Your task to perform on an android device: change your default location settings in chrome Image 0: 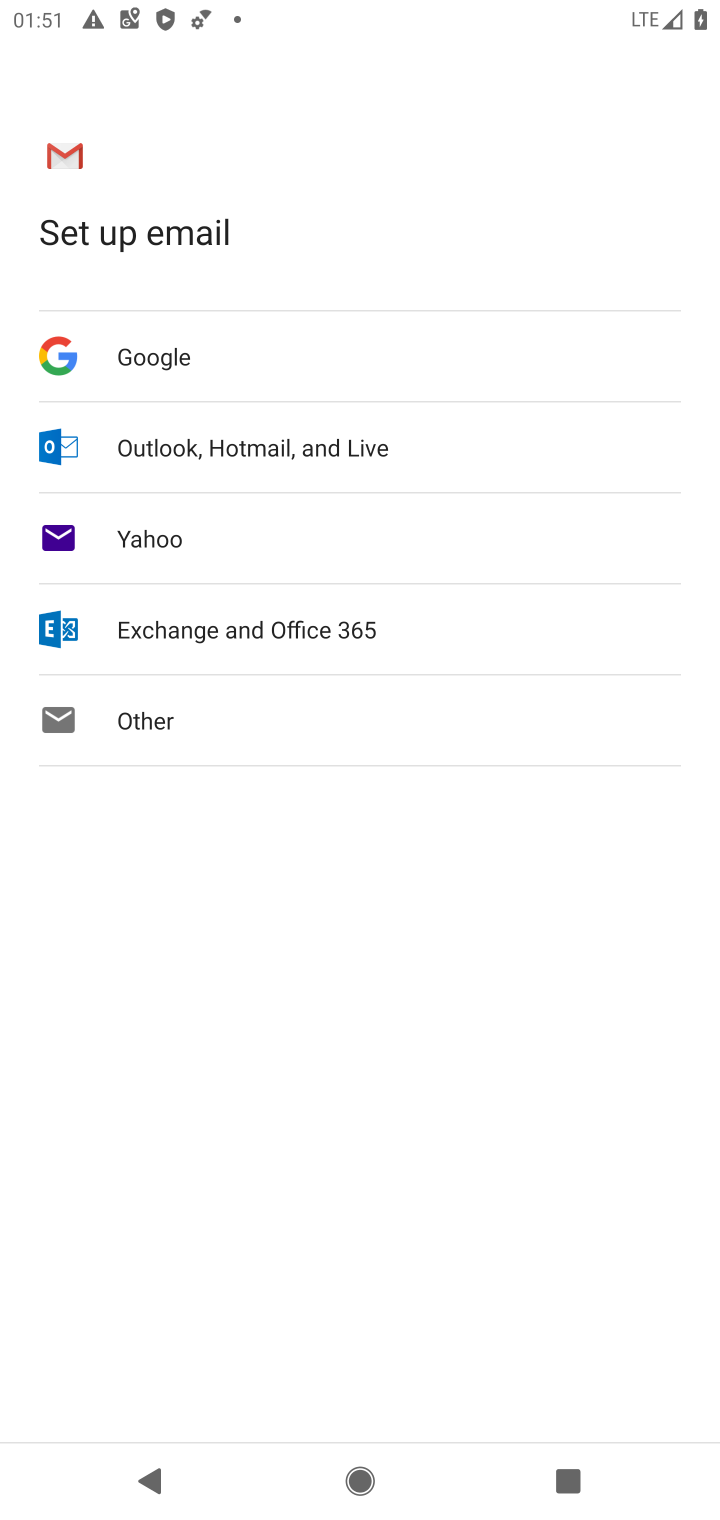
Step 0: press home button
Your task to perform on an android device: change your default location settings in chrome Image 1: 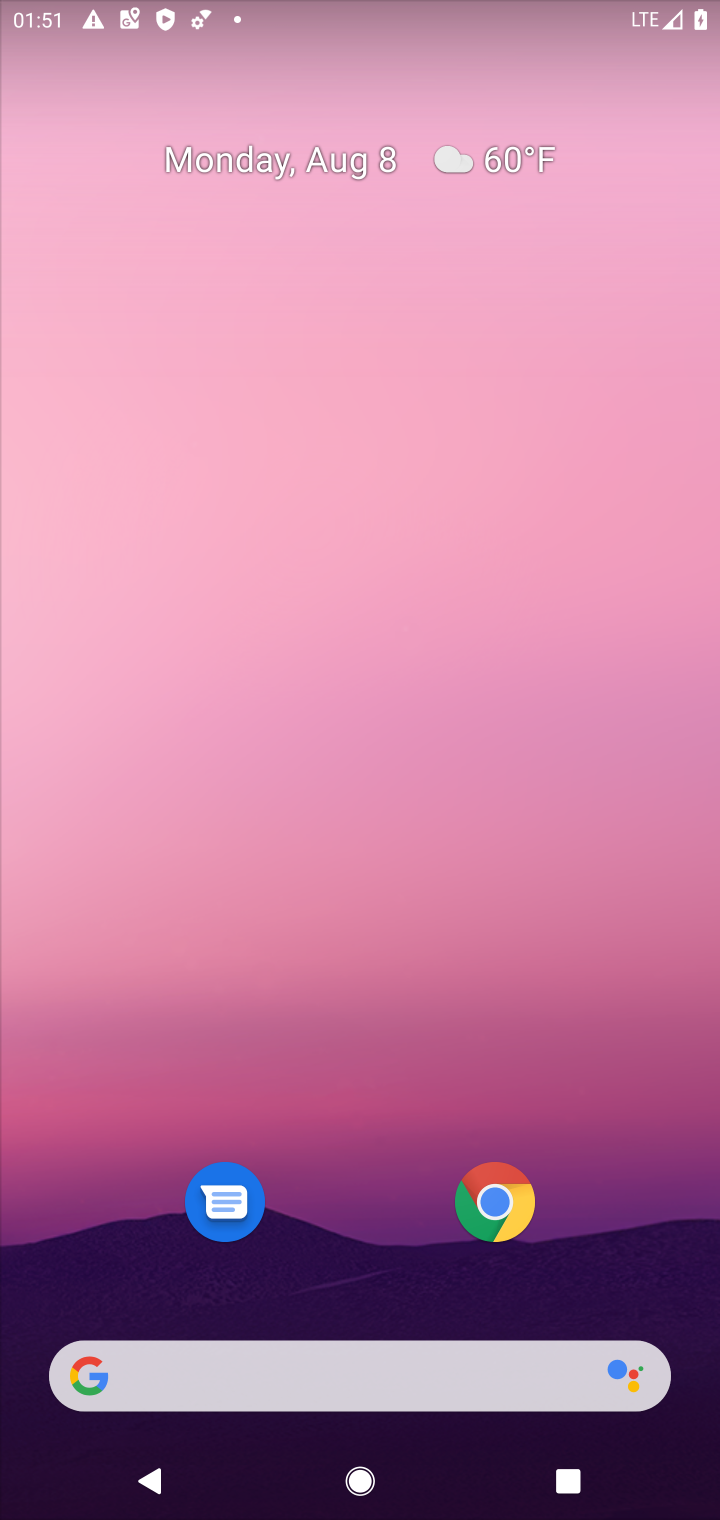
Step 1: click (488, 1203)
Your task to perform on an android device: change your default location settings in chrome Image 2: 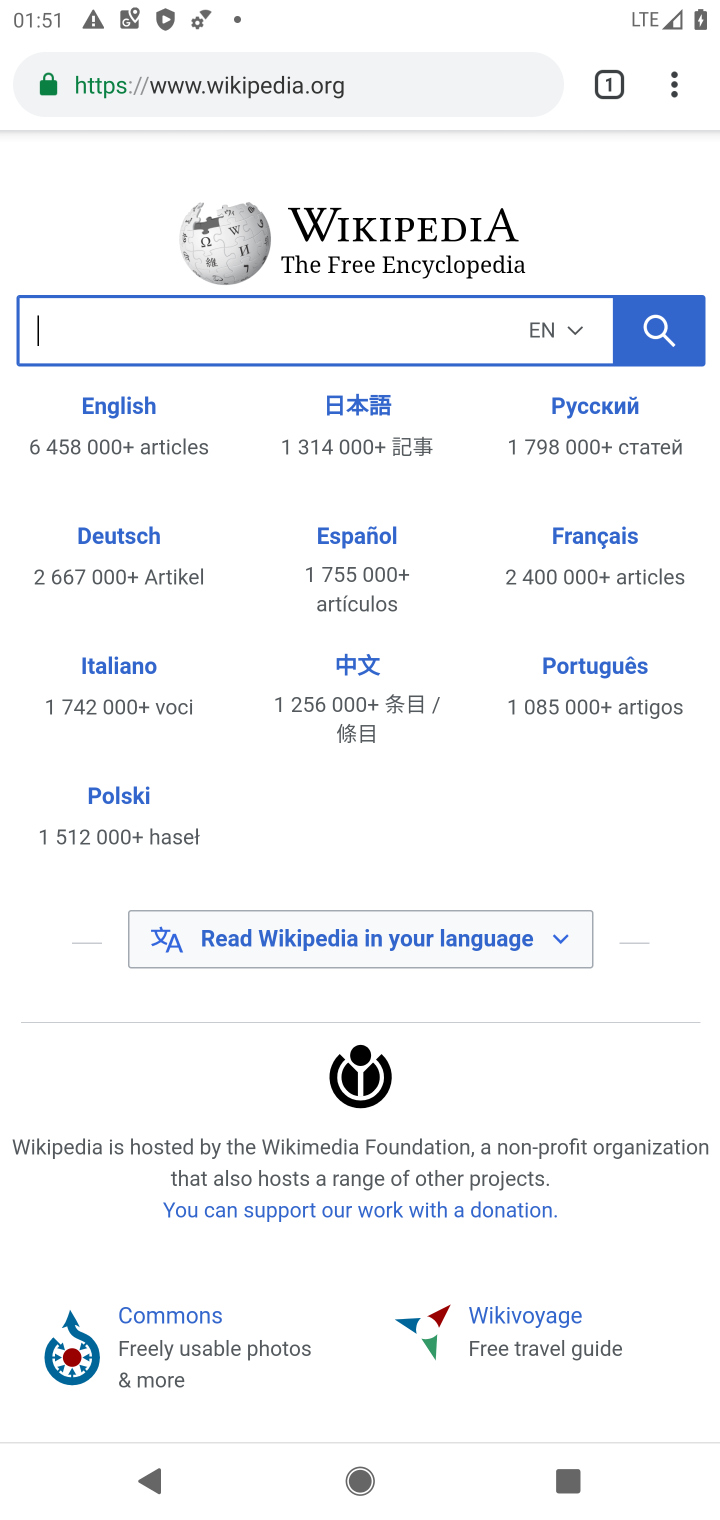
Step 2: click (678, 101)
Your task to perform on an android device: change your default location settings in chrome Image 3: 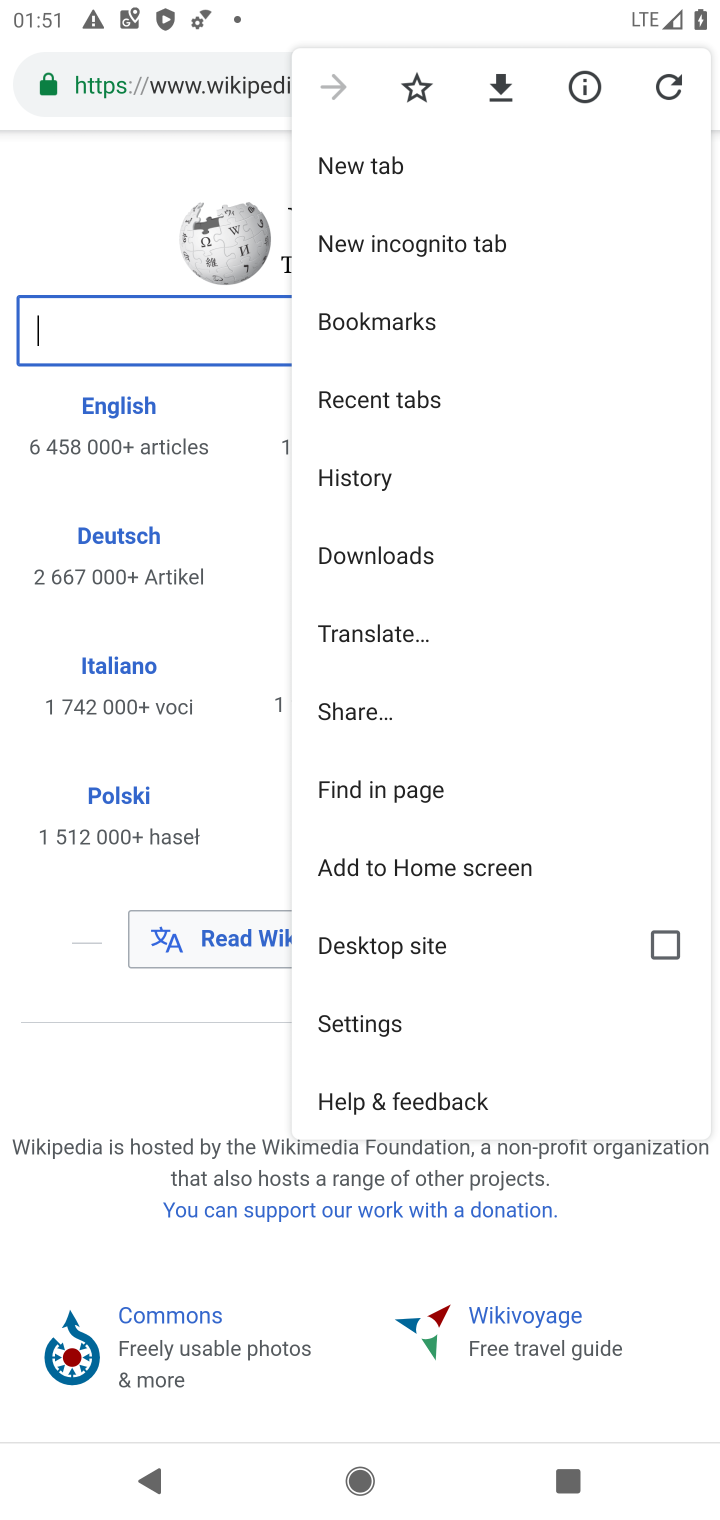
Step 3: click (351, 1026)
Your task to perform on an android device: change your default location settings in chrome Image 4: 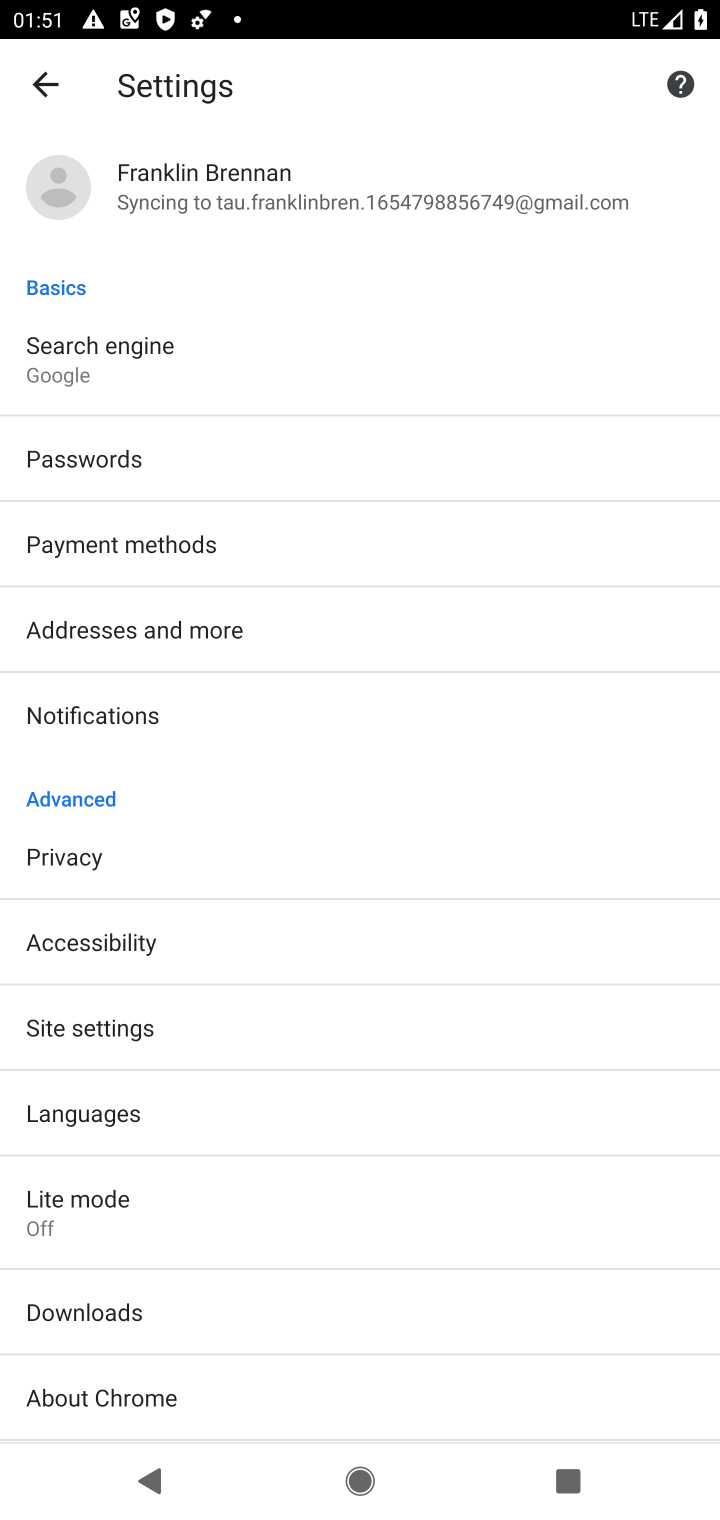
Step 4: click (96, 1026)
Your task to perform on an android device: change your default location settings in chrome Image 5: 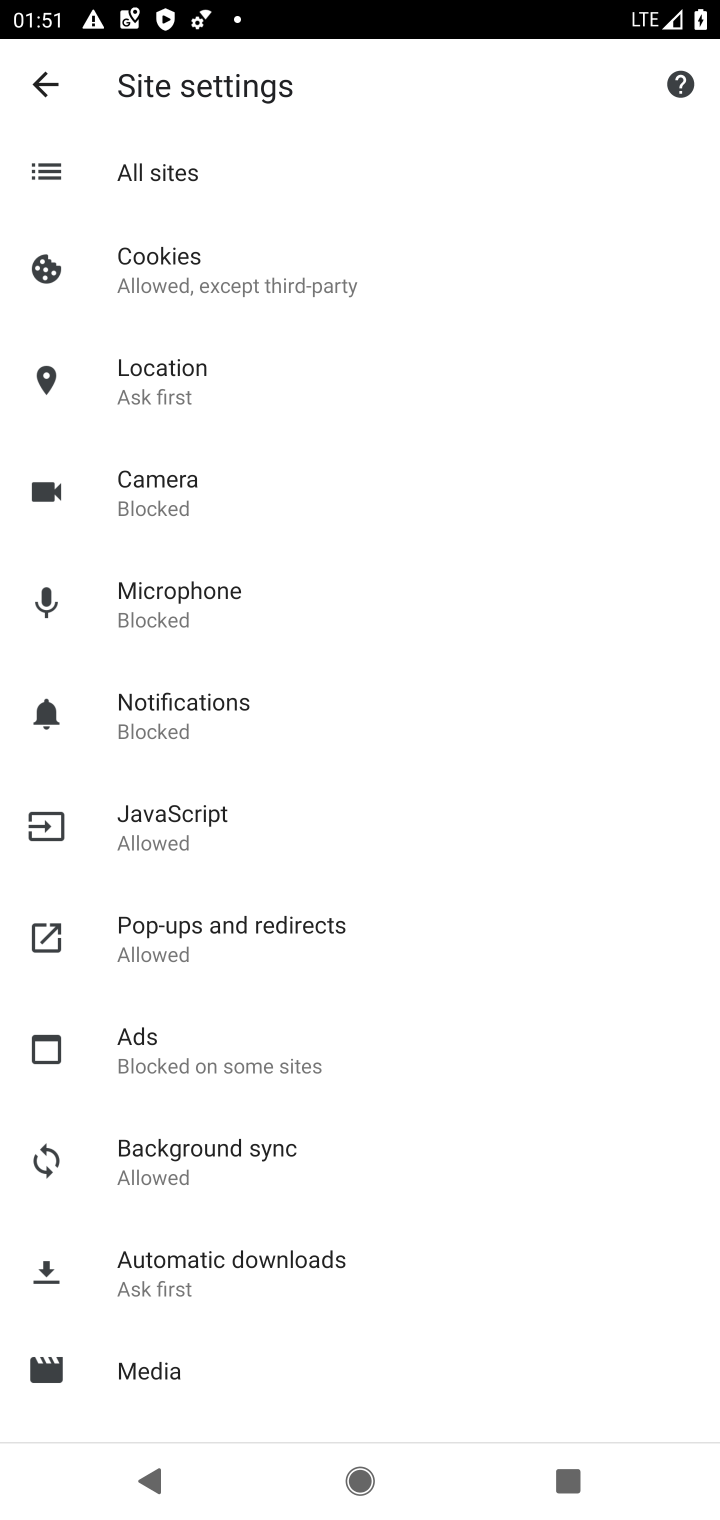
Step 5: click (171, 366)
Your task to perform on an android device: change your default location settings in chrome Image 6: 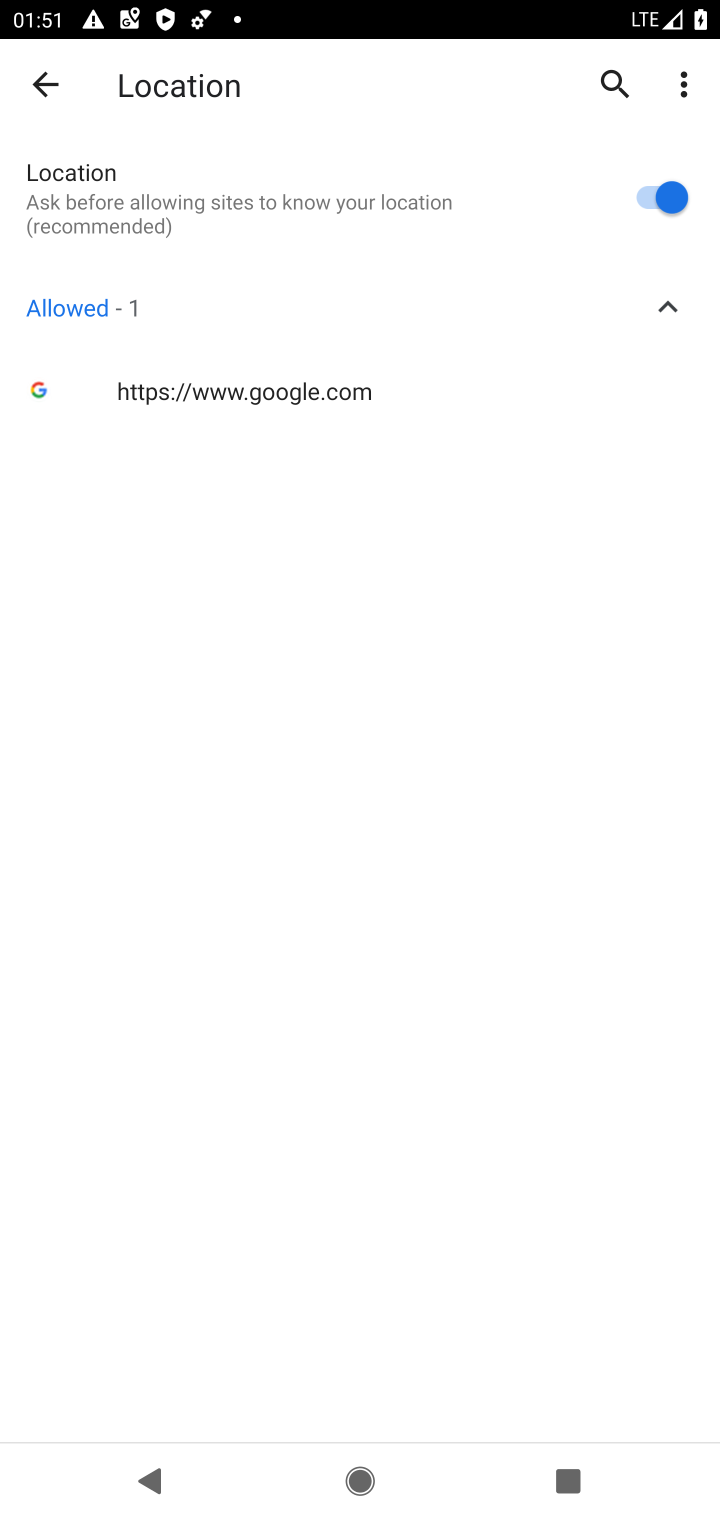
Step 6: click (639, 196)
Your task to perform on an android device: change your default location settings in chrome Image 7: 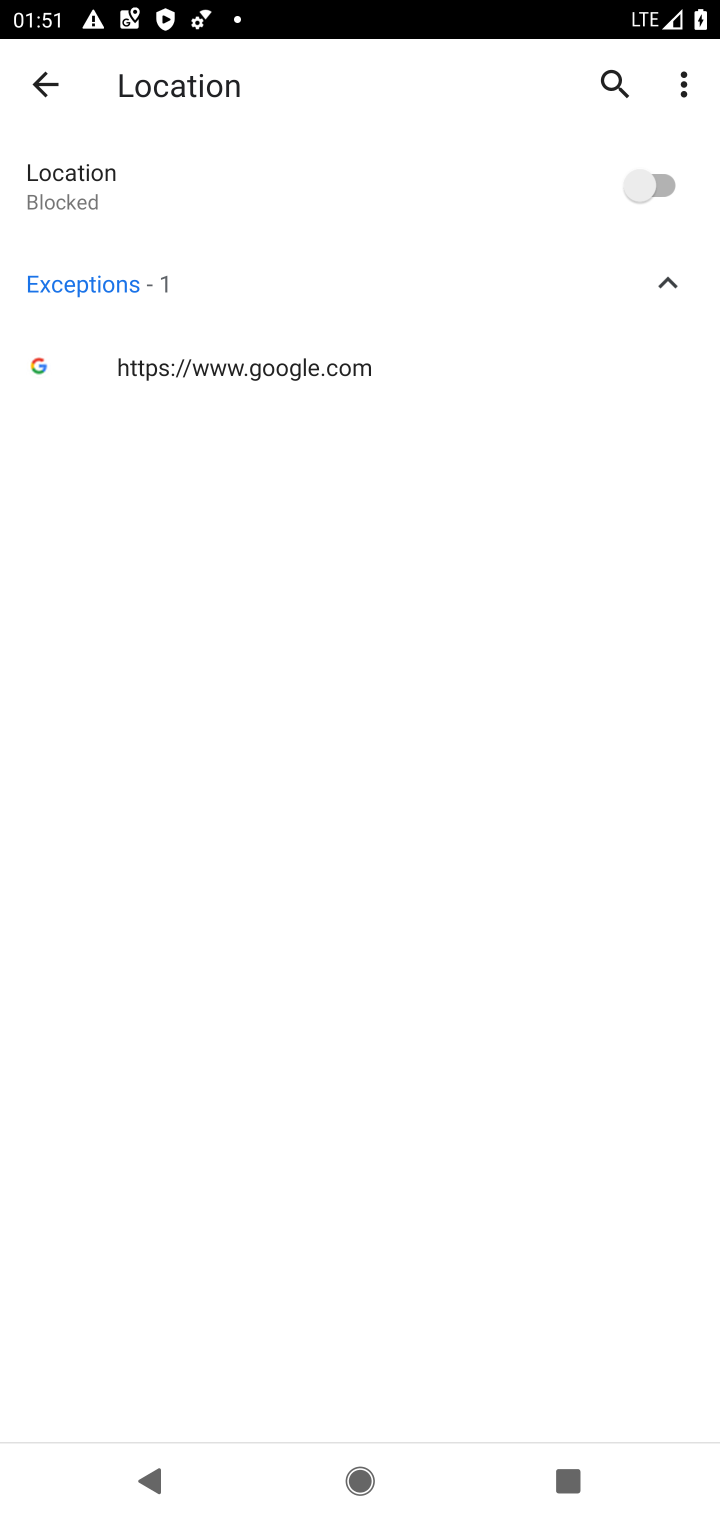
Step 7: task complete